Your task to perform on an android device: change notifications settings Image 0: 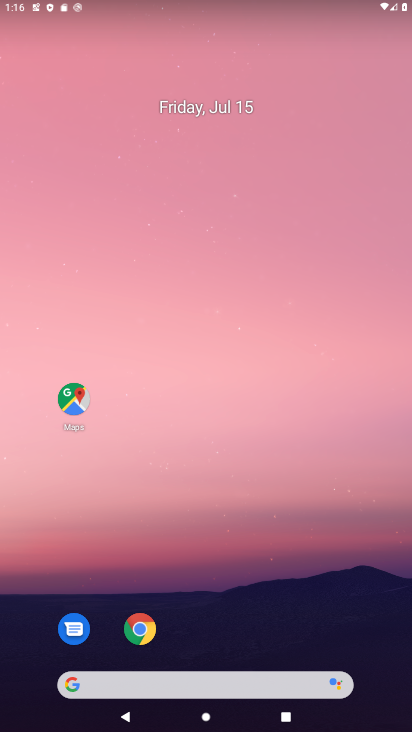
Step 0: drag from (233, 620) to (234, 83)
Your task to perform on an android device: change notifications settings Image 1: 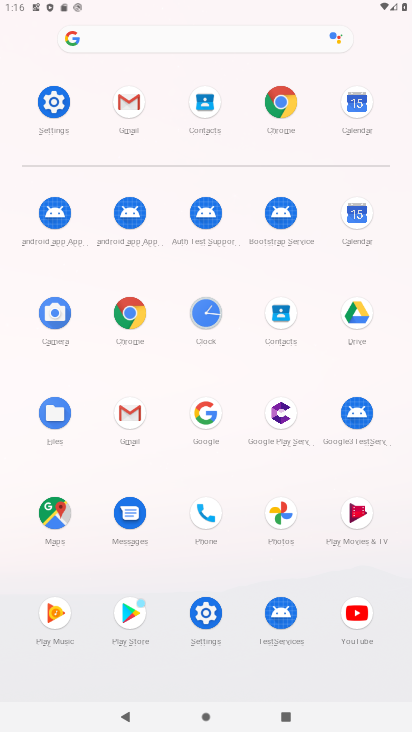
Step 1: click (58, 105)
Your task to perform on an android device: change notifications settings Image 2: 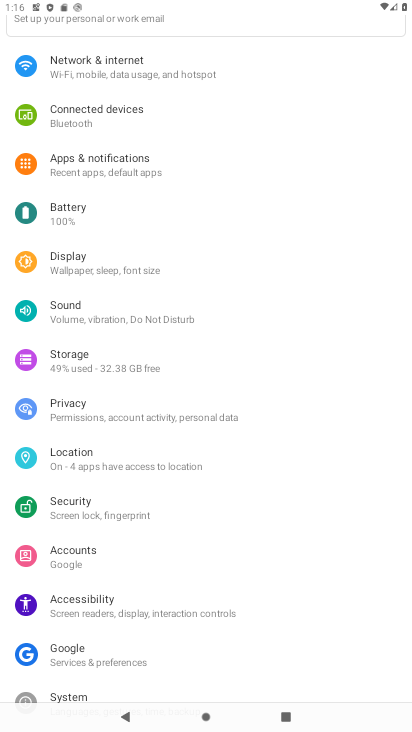
Step 2: click (92, 163)
Your task to perform on an android device: change notifications settings Image 3: 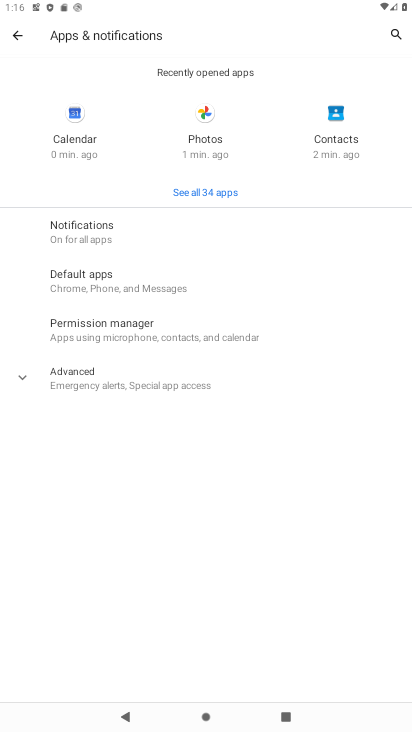
Step 3: click (93, 232)
Your task to perform on an android device: change notifications settings Image 4: 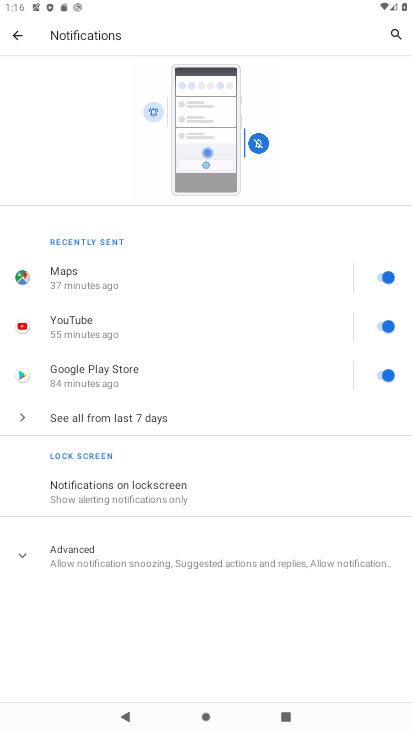
Step 4: task complete